Your task to perform on an android device: Open eBay Image 0: 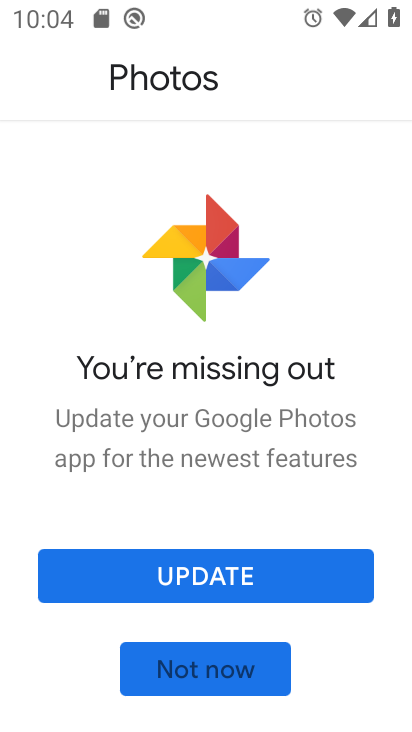
Step 0: press home button
Your task to perform on an android device: Open eBay Image 1: 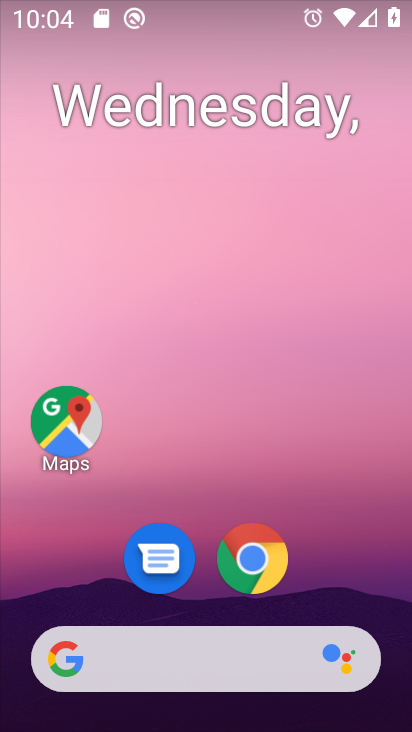
Step 1: drag from (379, 569) to (384, 24)
Your task to perform on an android device: Open eBay Image 2: 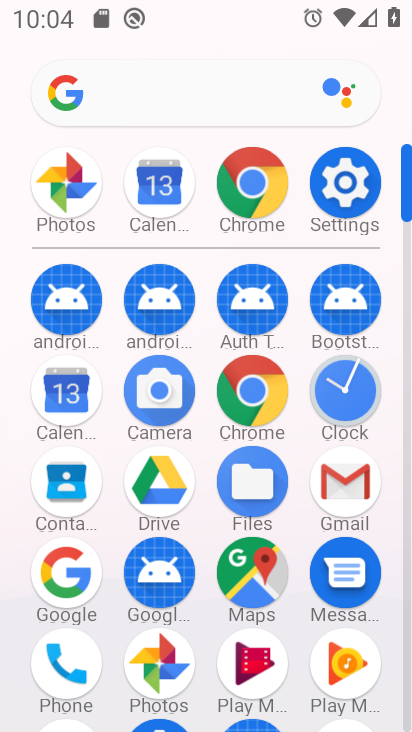
Step 2: click (251, 396)
Your task to perform on an android device: Open eBay Image 3: 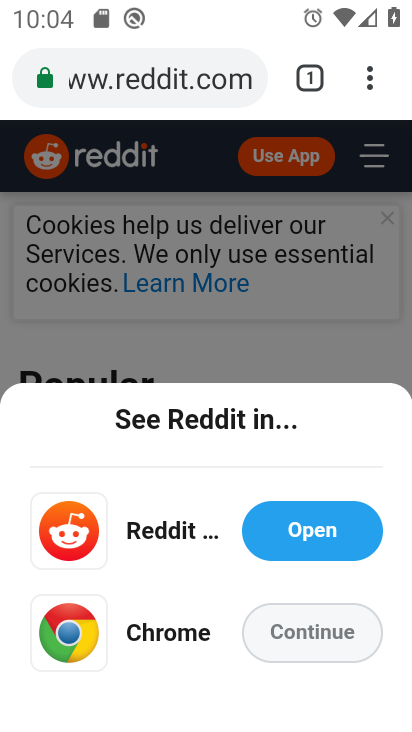
Step 3: click (203, 79)
Your task to perform on an android device: Open eBay Image 4: 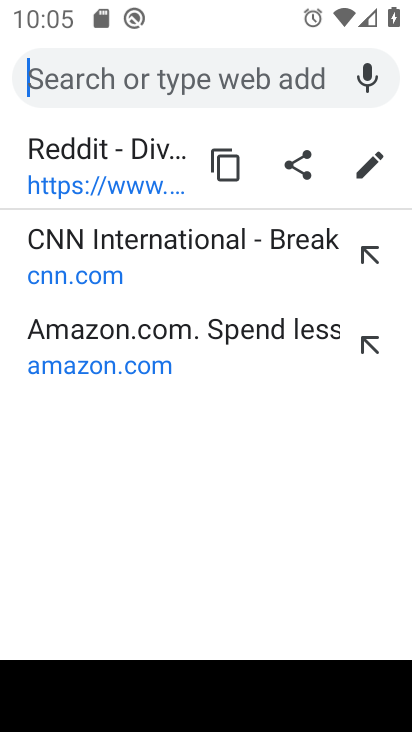
Step 4: type "ebay"
Your task to perform on an android device: Open eBay Image 5: 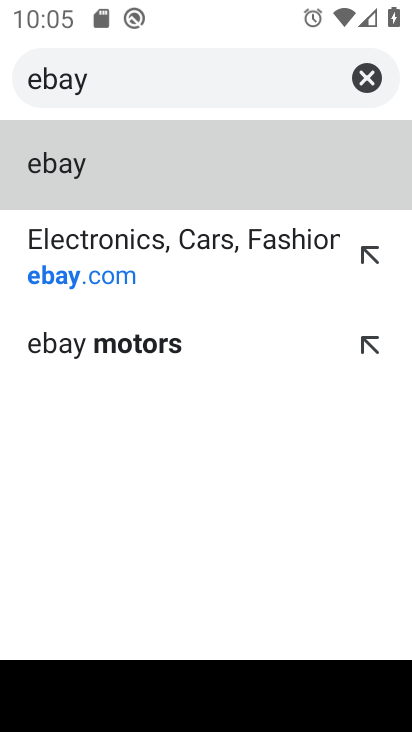
Step 5: click (271, 182)
Your task to perform on an android device: Open eBay Image 6: 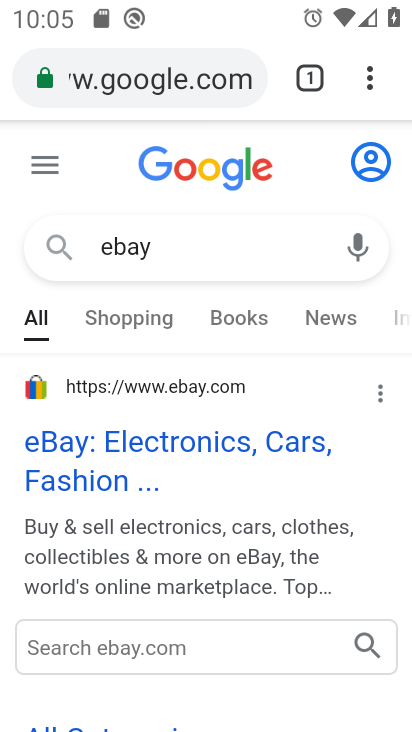
Step 6: task complete